Your task to perform on an android device: Open ESPN.com Image 0: 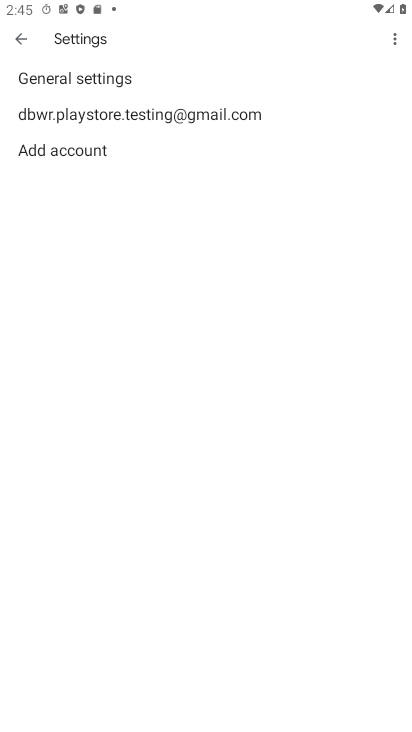
Step 0: press home button
Your task to perform on an android device: Open ESPN.com Image 1: 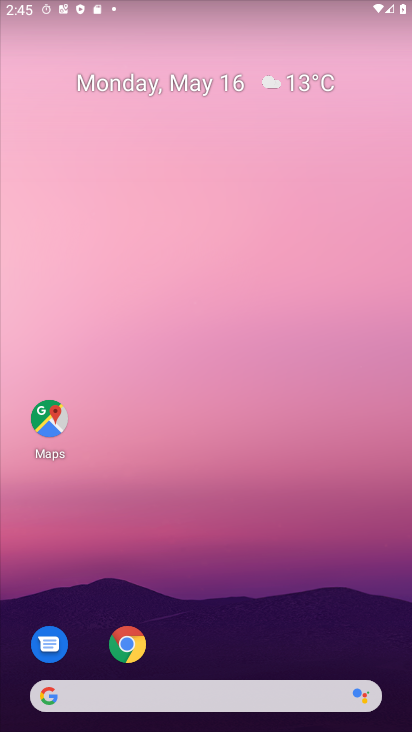
Step 1: drag from (238, 612) to (290, 92)
Your task to perform on an android device: Open ESPN.com Image 2: 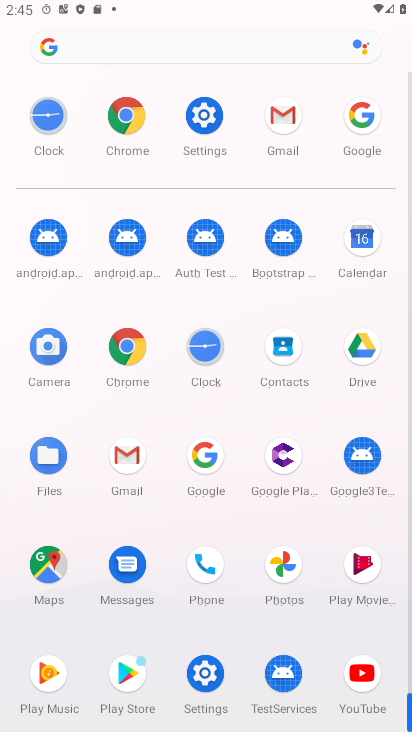
Step 2: click (135, 143)
Your task to perform on an android device: Open ESPN.com Image 3: 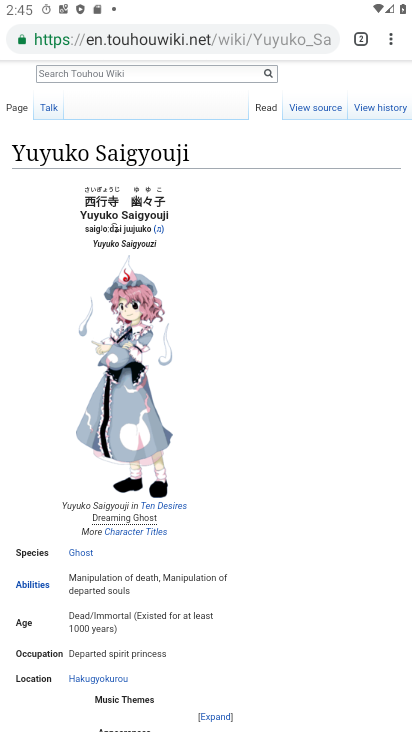
Step 3: click (258, 39)
Your task to perform on an android device: Open ESPN.com Image 4: 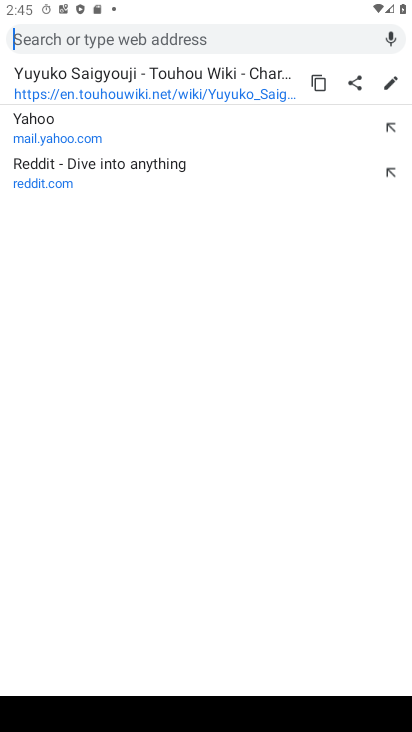
Step 4: type "espn"
Your task to perform on an android device: Open ESPN.com Image 5: 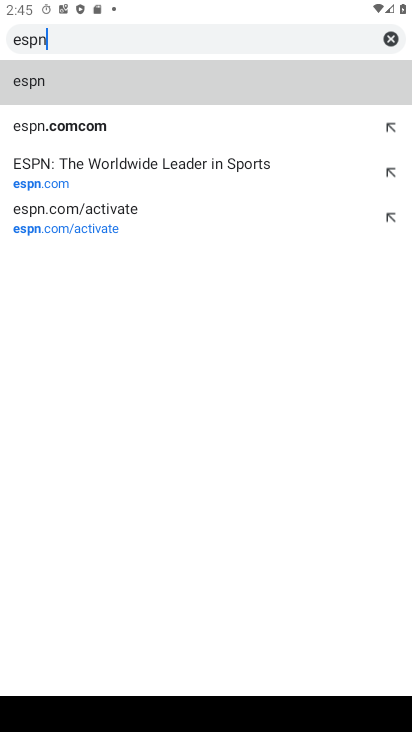
Step 5: click (143, 161)
Your task to perform on an android device: Open ESPN.com Image 6: 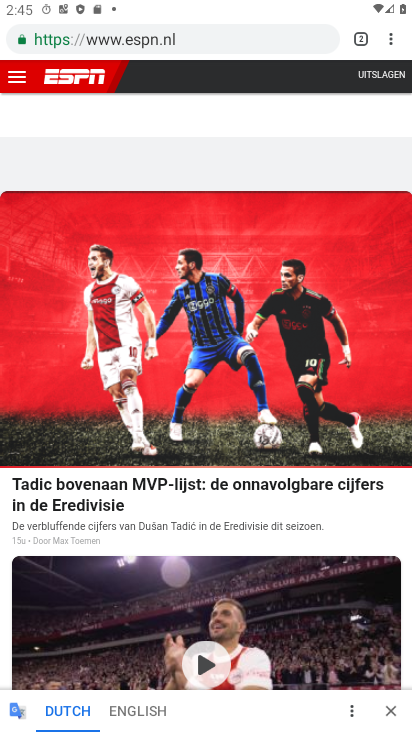
Step 6: task complete